Your task to perform on an android device: open wifi settings Image 0: 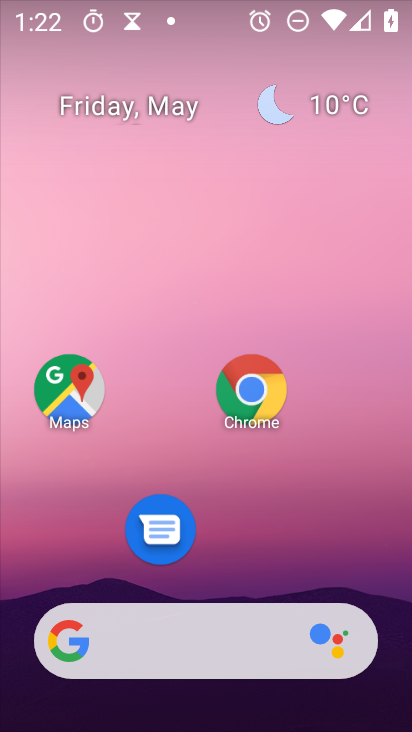
Step 0: press home button
Your task to perform on an android device: open wifi settings Image 1: 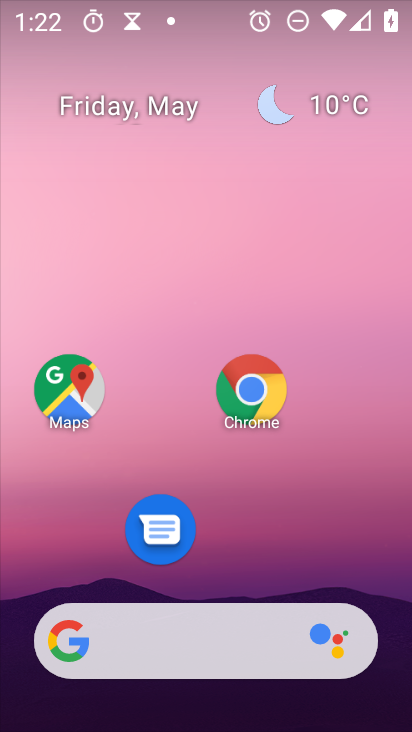
Step 1: drag from (159, 642) to (267, 112)
Your task to perform on an android device: open wifi settings Image 2: 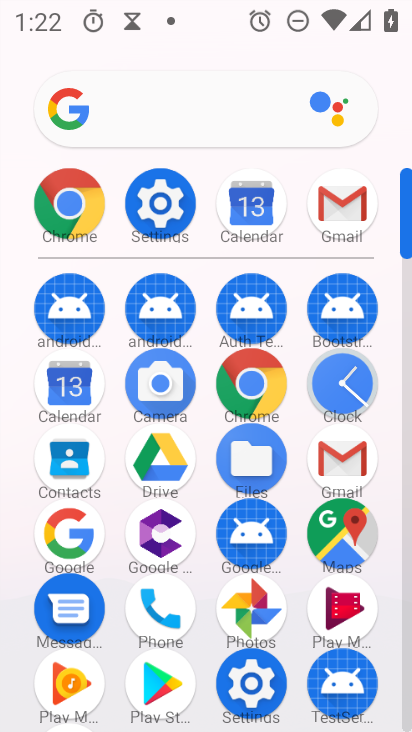
Step 2: click (152, 206)
Your task to perform on an android device: open wifi settings Image 3: 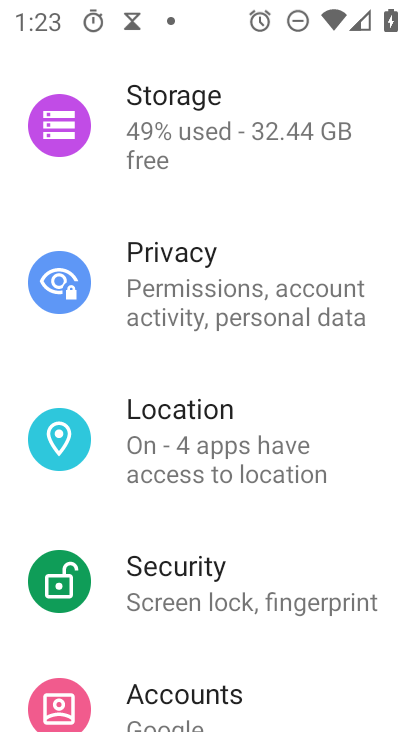
Step 3: drag from (310, 70) to (223, 527)
Your task to perform on an android device: open wifi settings Image 4: 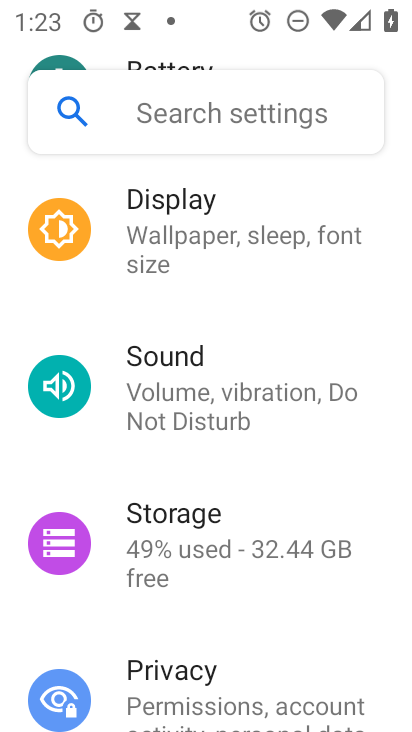
Step 4: drag from (313, 186) to (231, 598)
Your task to perform on an android device: open wifi settings Image 5: 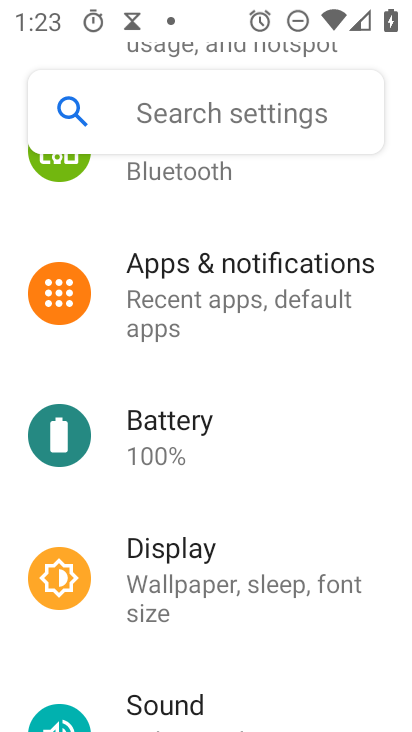
Step 5: drag from (273, 220) to (214, 653)
Your task to perform on an android device: open wifi settings Image 6: 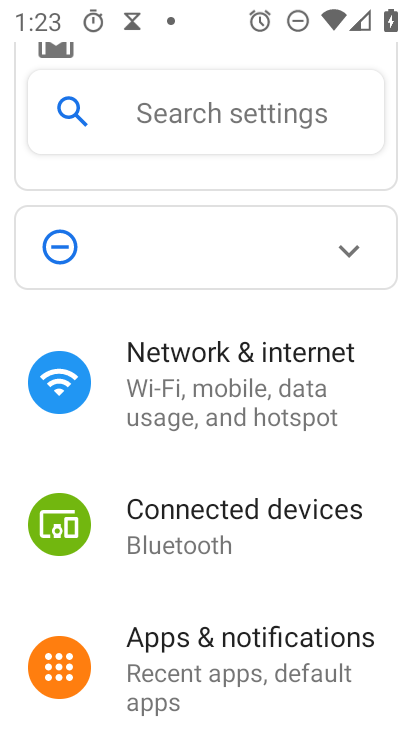
Step 6: click (229, 383)
Your task to perform on an android device: open wifi settings Image 7: 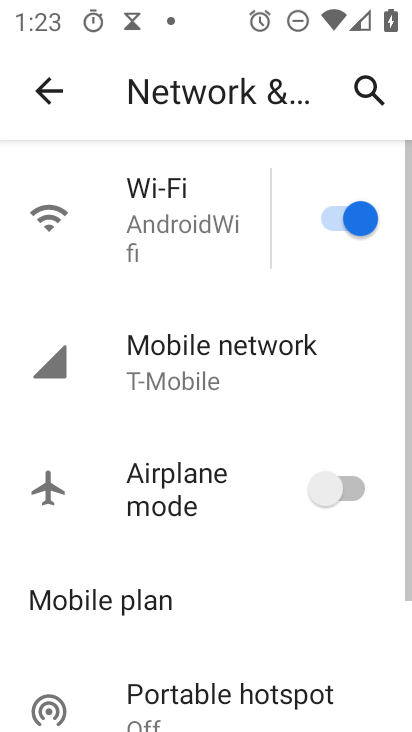
Step 7: click (153, 230)
Your task to perform on an android device: open wifi settings Image 8: 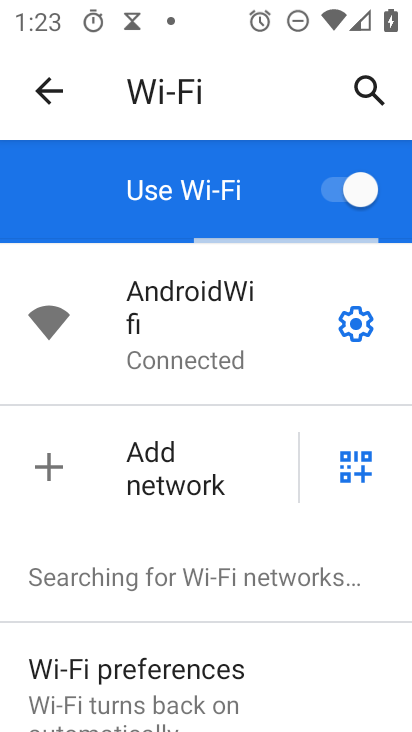
Step 8: task complete